Your task to perform on an android device: Go to Yahoo.com Image 0: 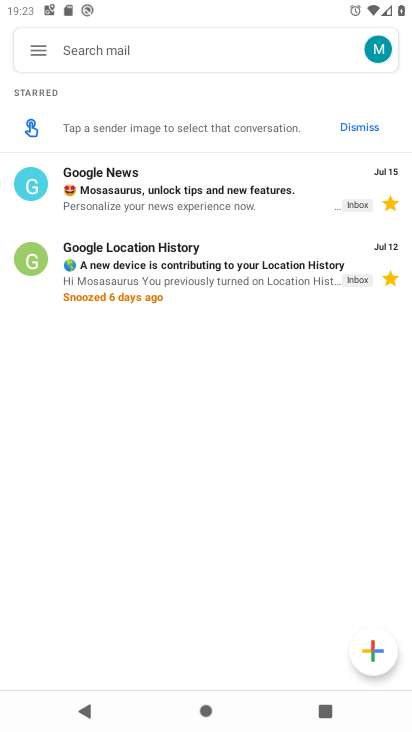
Step 0: press home button
Your task to perform on an android device: Go to Yahoo.com Image 1: 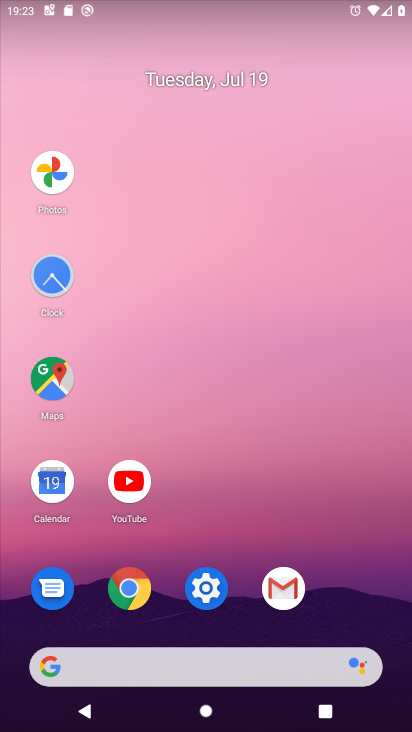
Step 1: click (131, 594)
Your task to perform on an android device: Go to Yahoo.com Image 2: 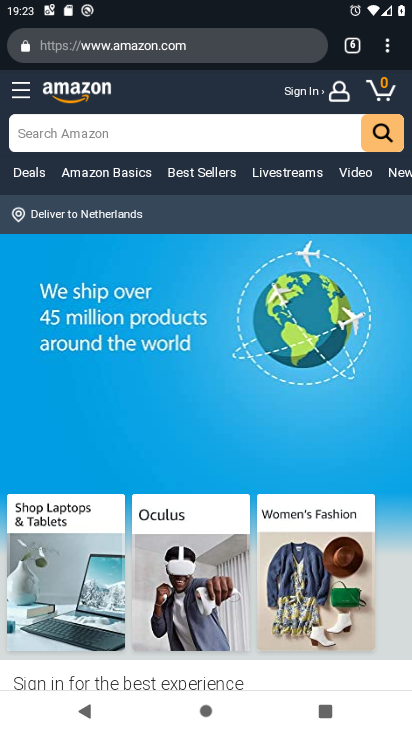
Step 2: click (390, 46)
Your task to perform on an android device: Go to Yahoo.com Image 3: 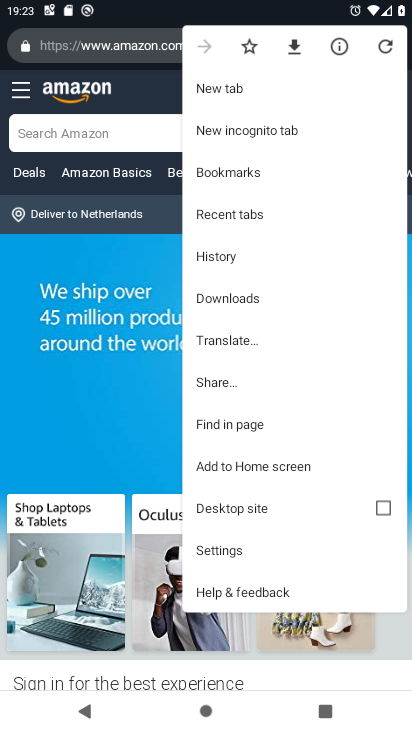
Step 3: click (223, 86)
Your task to perform on an android device: Go to Yahoo.com Image 4: 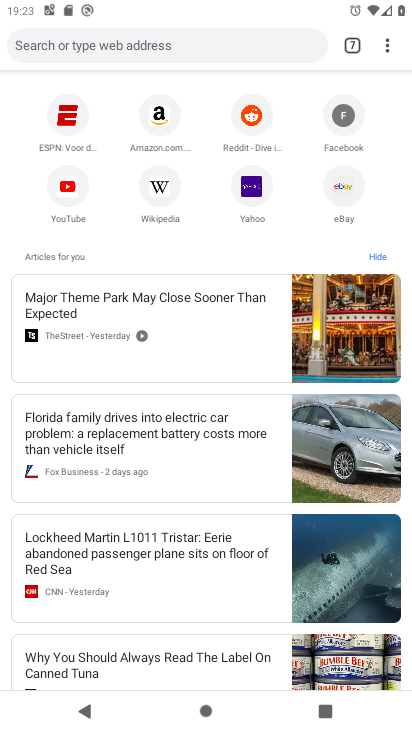
Step 4: click (253, 196)
Your task to perform on an android device: Go to Yahoo.com Image 5: 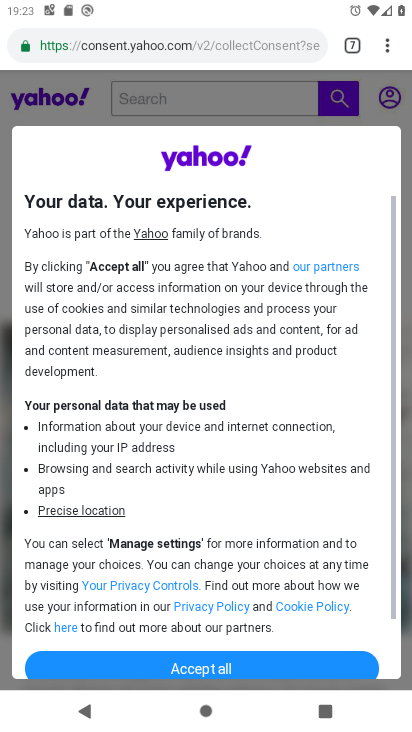
Step 5: click (243, 665)
Your task to perform on an android device: Go to Yahoo.com Image 6: 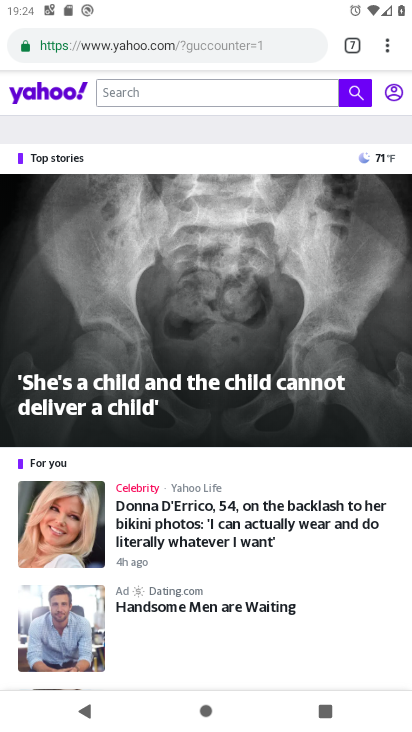
Step 6: task complete